Your task to perform on an android device: see creations saved in the google photos Image 0: 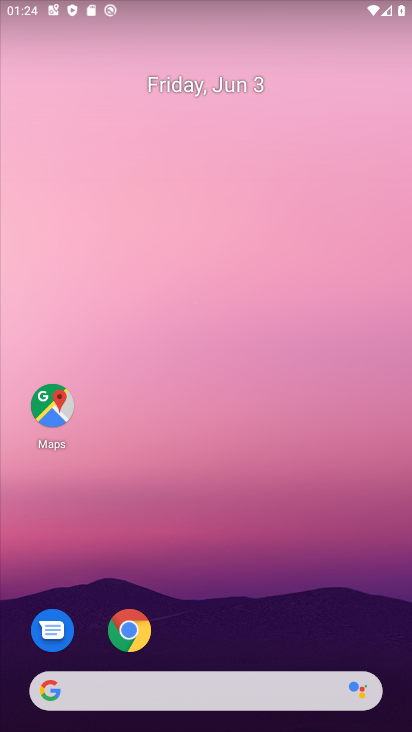
Step 0: drag from (188, 627) to (138, 43)
Your task to perform on an android device: see creations saved in the google photos Image 1: 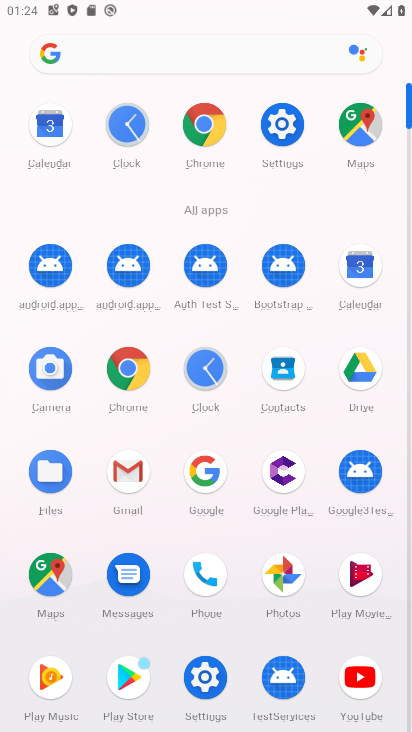
Step 1: click (294, 578)
Your task to perform on an android device: see creations saved in the google photos Image 2: 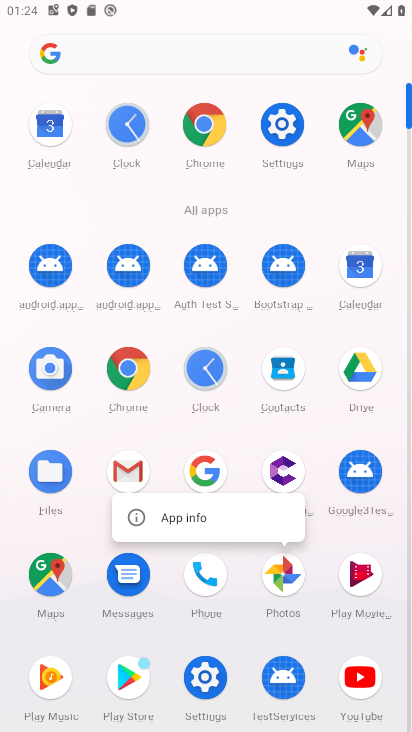
Step 2: click (294, 578)
Your task to perform on an android device: see creations saved in the google photos Image 3: 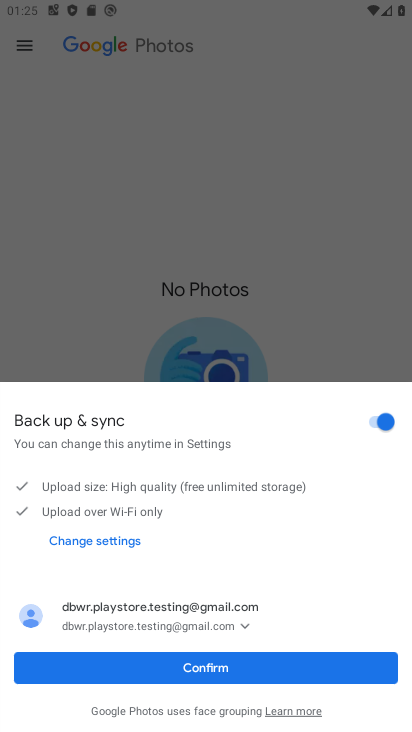
Step 3: click (302, 655)
Your task to perform on an android device: see creations saved in the google photos Image 4: 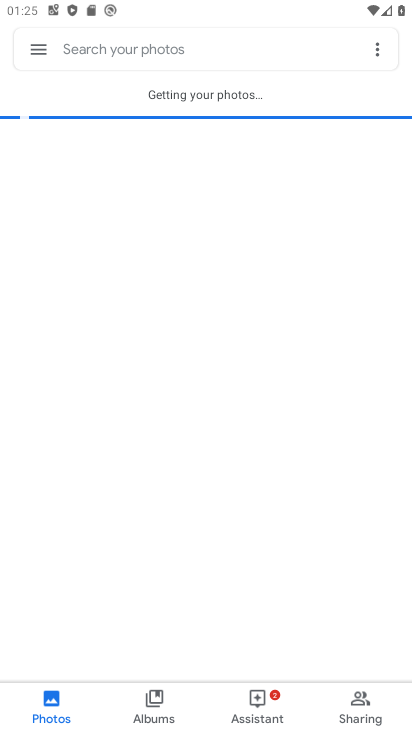
Step 4: click (186, 44)
Your task to perform on an android device: see creations saved in the google photos Image 5: 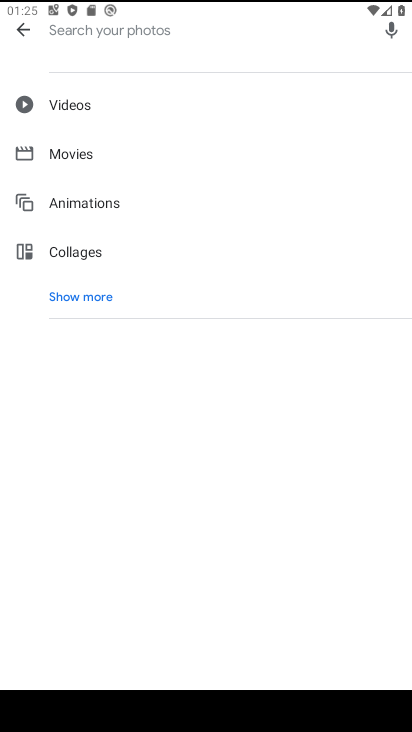
Step 5: click (50, 303)
Your task to perform on an android device: see creations saved in the google photos Image 6: 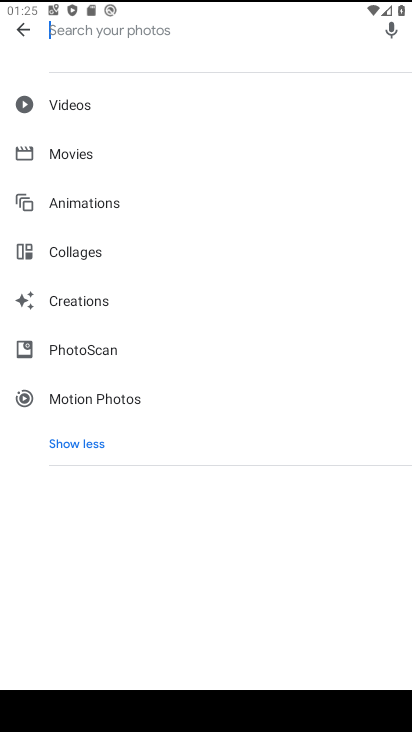
Step 6: click (58, 308)
Your task to perform on an android device: see creations saved in the google photos Image 7: 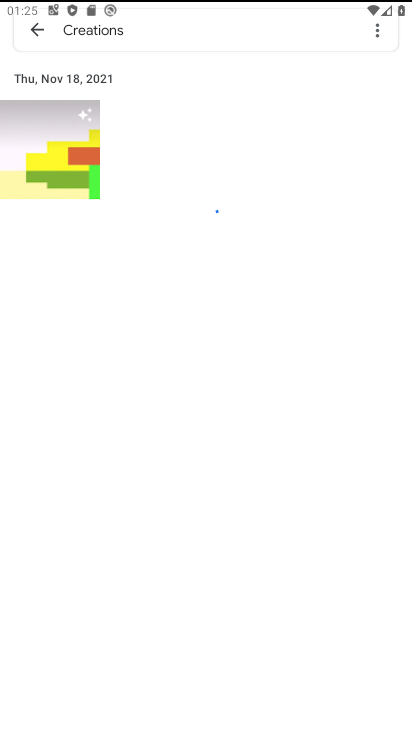
Step 7: task complete